Your task to perform on an android device: toggle sleep mode Image 0: 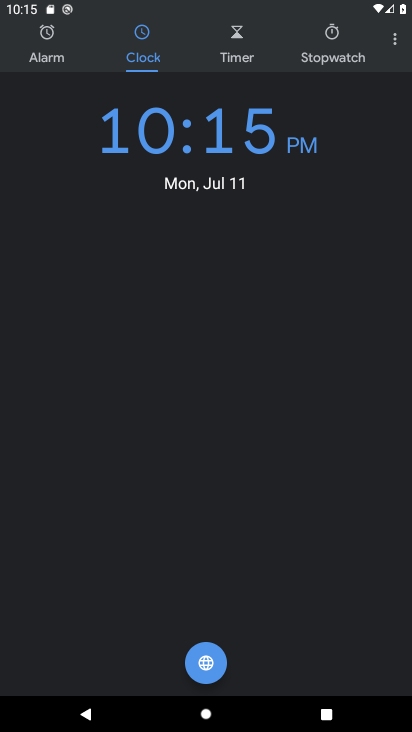
Step 0: press home button
Your task to perform on an android device: toggle sleep mode Image 1: 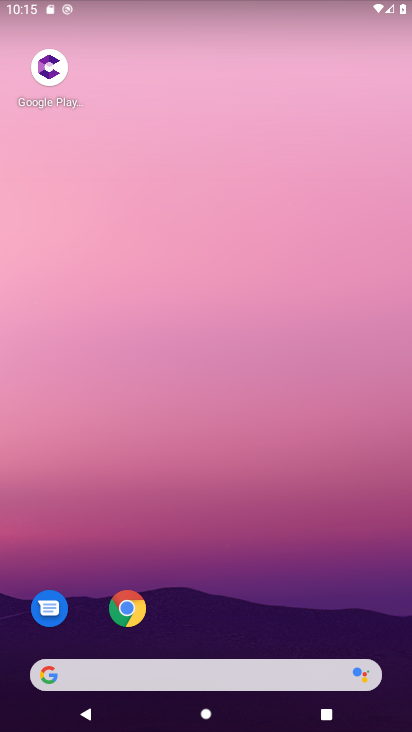
Step 1: drag from (280, 582) to (225, 109)
Your task to perform on an android device: toggle sleep mode Image 2: 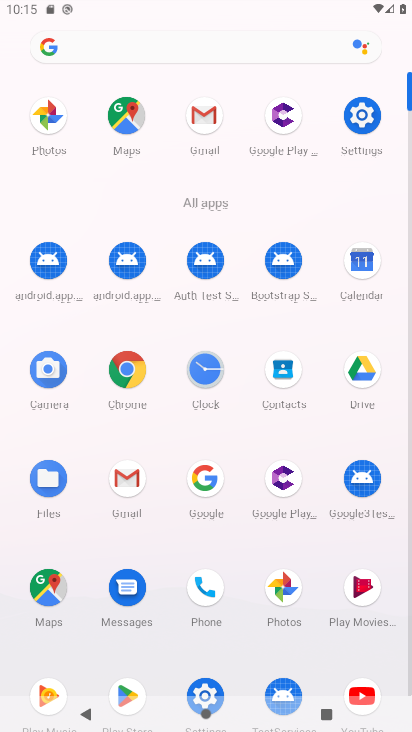
Step 2: click (373, 109)
Your task to perform on an android device: toggle sleep mode Image 3: 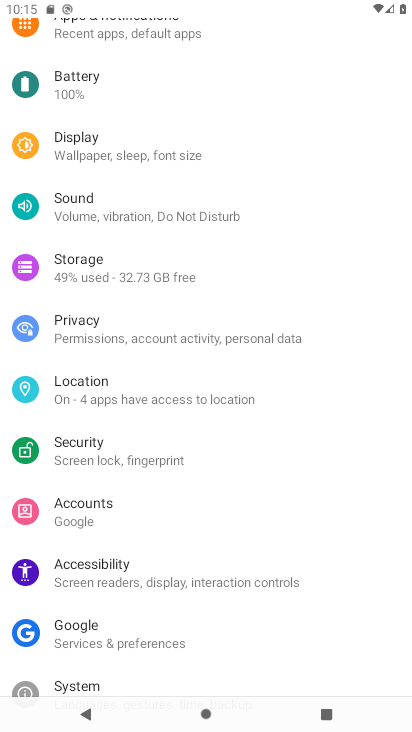
Step 3: click (156, 158)
Your task to perform on an android device: toggle sleep mode Image 4: 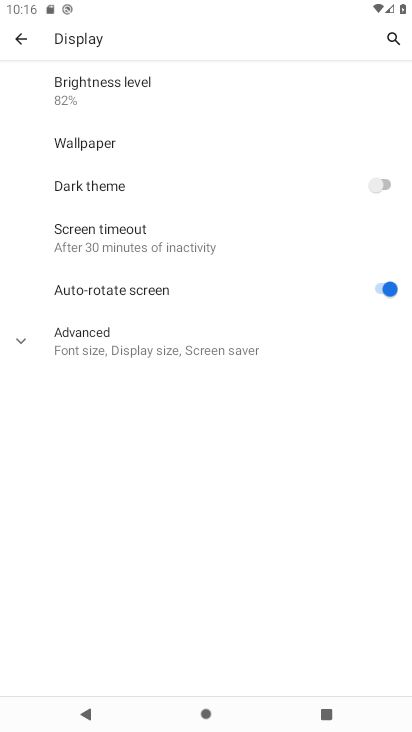
Step 4: click (176, 344)
Your task to perform on an android device: toggle sleep mode Image 5: 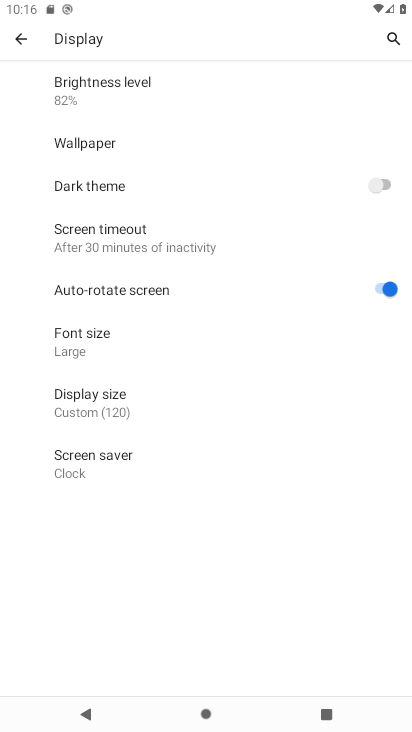
Step 5: task complete